Your task to perform on an android device: open chrome and create a bookmark for the current page Image 0: 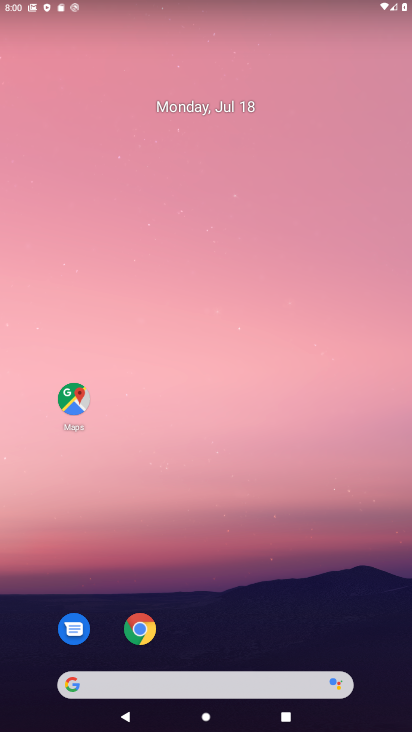
Step 0: click (145, 643)
Your task to perform on an android device: open chrome and create a bookmark for the current page Image 1: 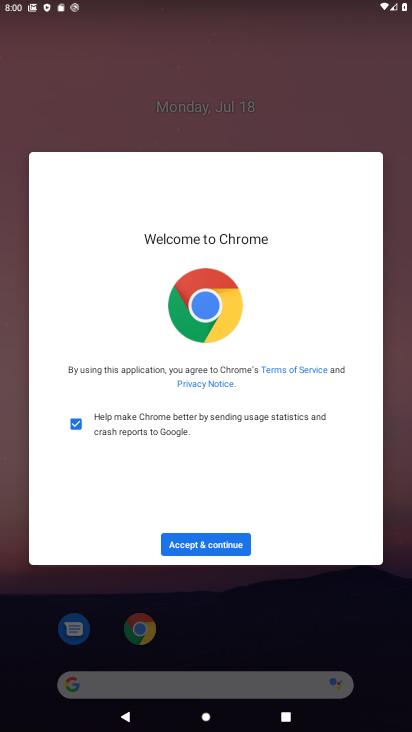
Step 1: click (187, 558)
Your task to perform on an android device: open chrome and create a bookmark for the current page Image 2: 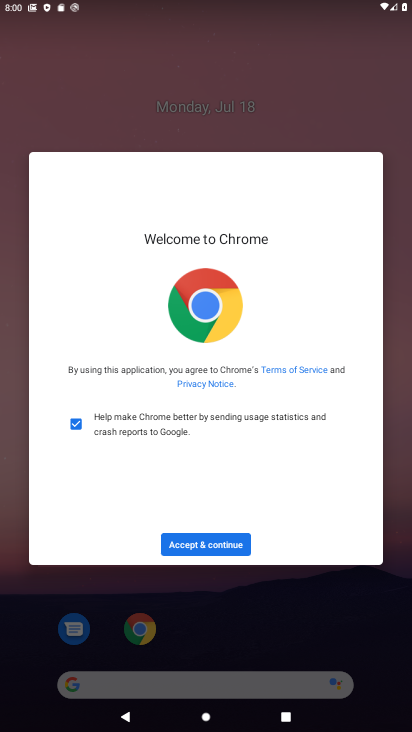
Step 2: click (187, 549)
Your task to perform on an android device: open chrome and create a bookmark for the current page Image 3: 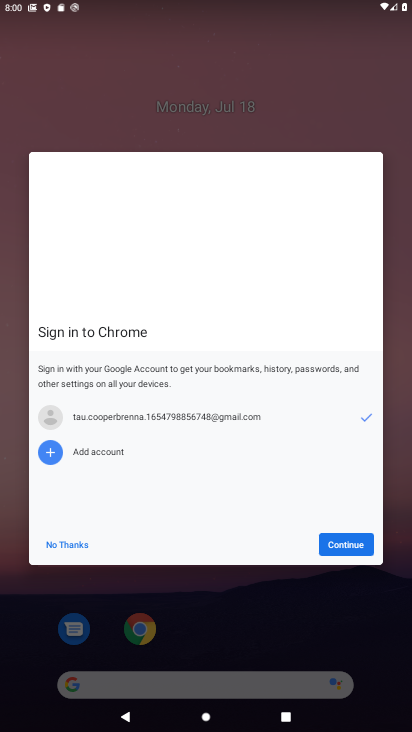
Step 3: click (333, 542)
Your task to perform on an android device: open chrome and create a bookmark for the current page Image 4: 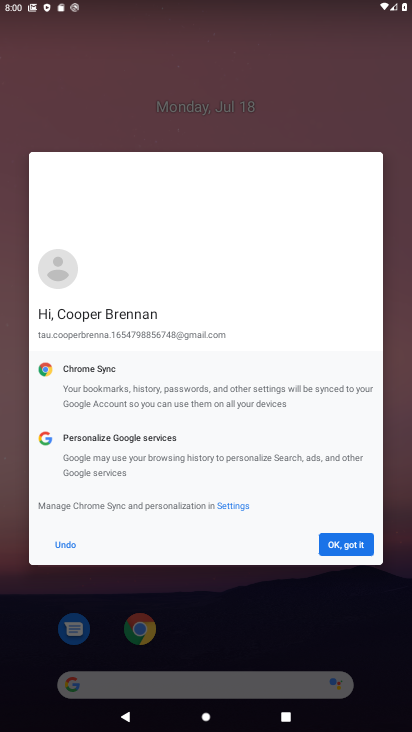
Step 4: click (333, 542)
Your task to perform on an android device: open chrome and create a bookmark for the current page Image 5: 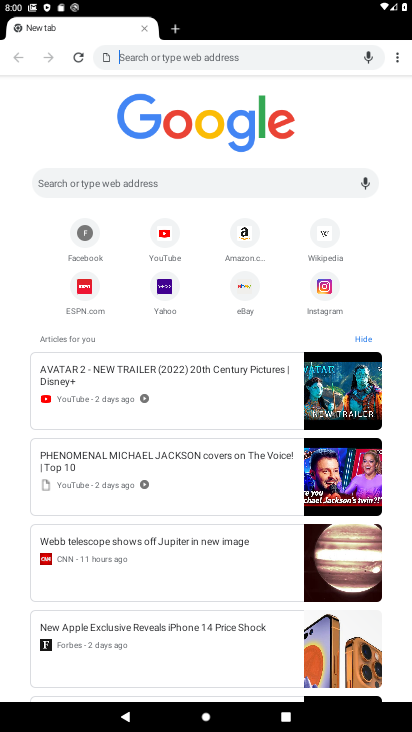
Step 5: click (402, 61)
Your task to perform on an android device: open chrome and create a bookmark for the current page Image 6: 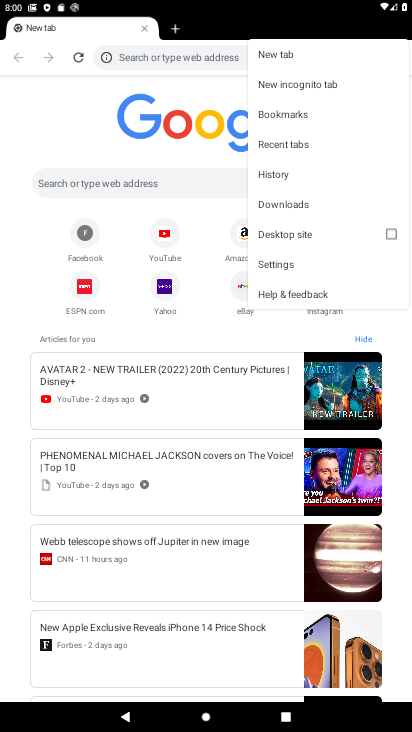
Step 6: click (190, 92)
Your task to perform on an android device: open chrome and create a bookmark for the current page Image 7: 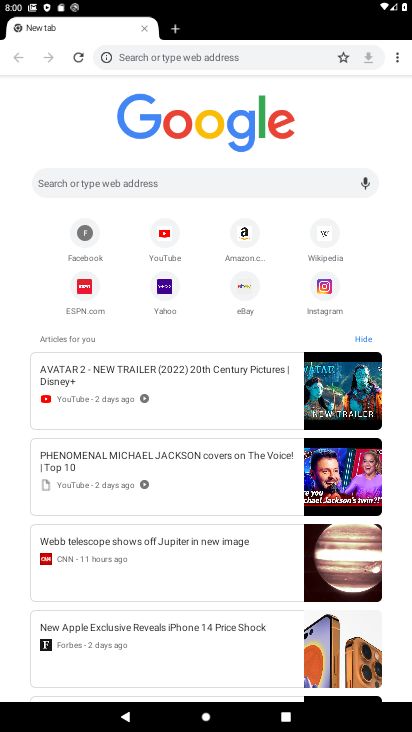
Step 7: click (341, 57)
Your task to perform on an android device: open chrome and create a bookmark for the current page Image 8: 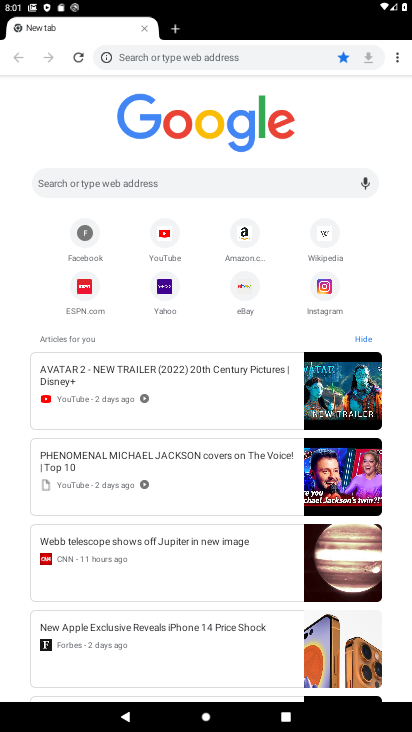
Step 8: task complete